Your task to perform on an android device: refresh tabs in the chrome app Image 0: 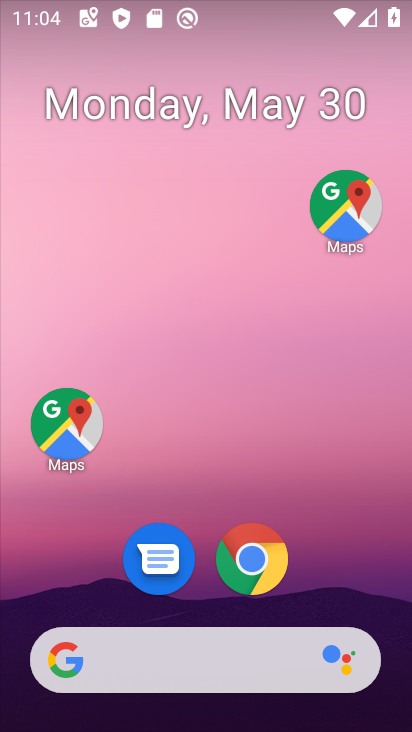
Step 0: click (248, 560)
Your task to perform on an android device: refresh tabs in the chrome app Image 1: 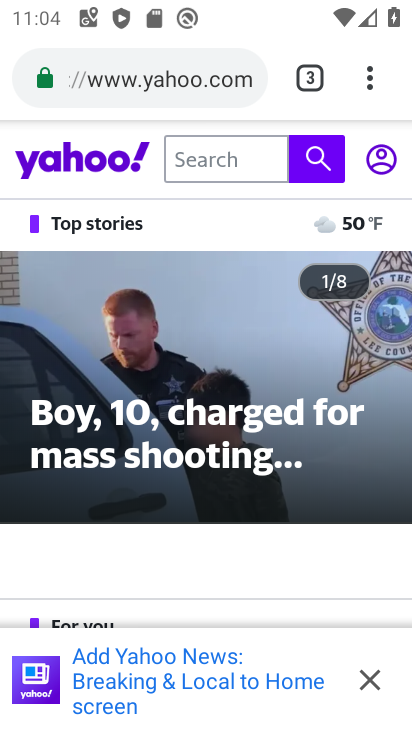
Step 1: click (373, 72)
Your task to perform on an android device: refresh tabs in the chrome app Image 2: 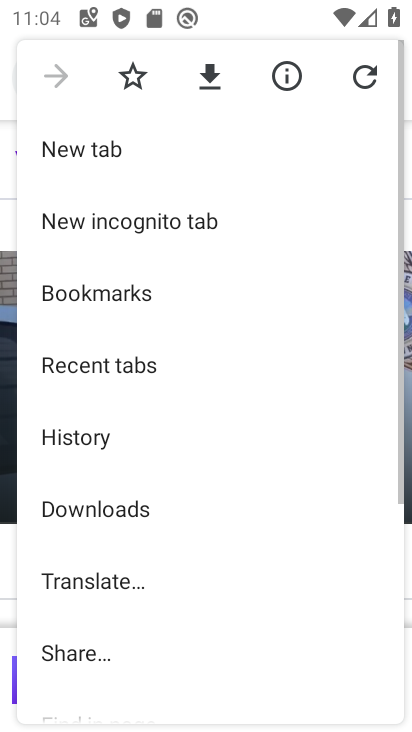
Step 2: click (373, 72)
Your task to perform on an android device: refresh tabs in the chrome app Image 3: 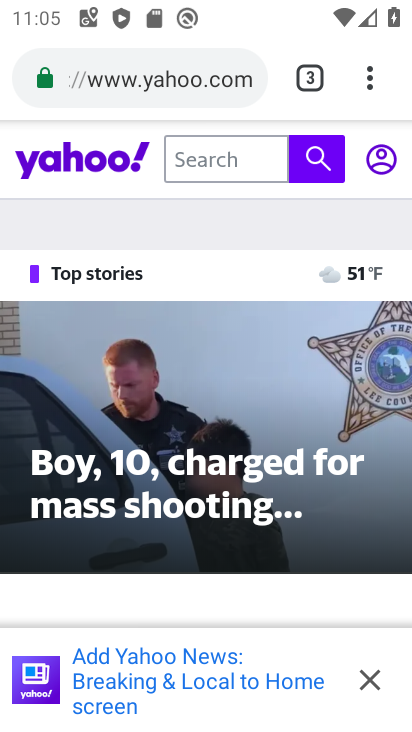
Step 3: task complete